Your task to perform on an android device: uninstall "VLC for Android" Image 0: 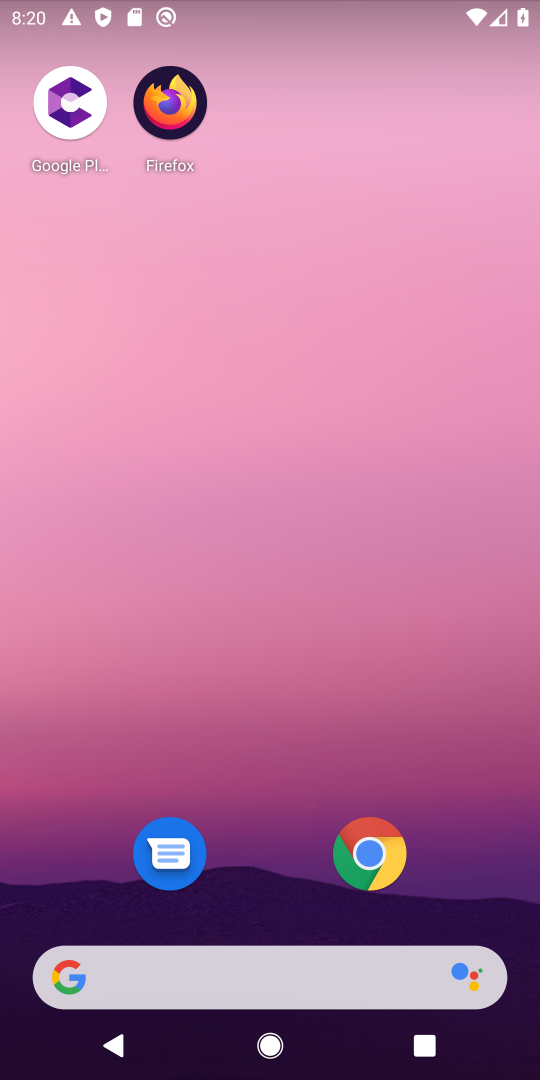
Step 0: click (307, 233)
Your task to perform on an android device: uninstall "VLC for Android" Image 1: 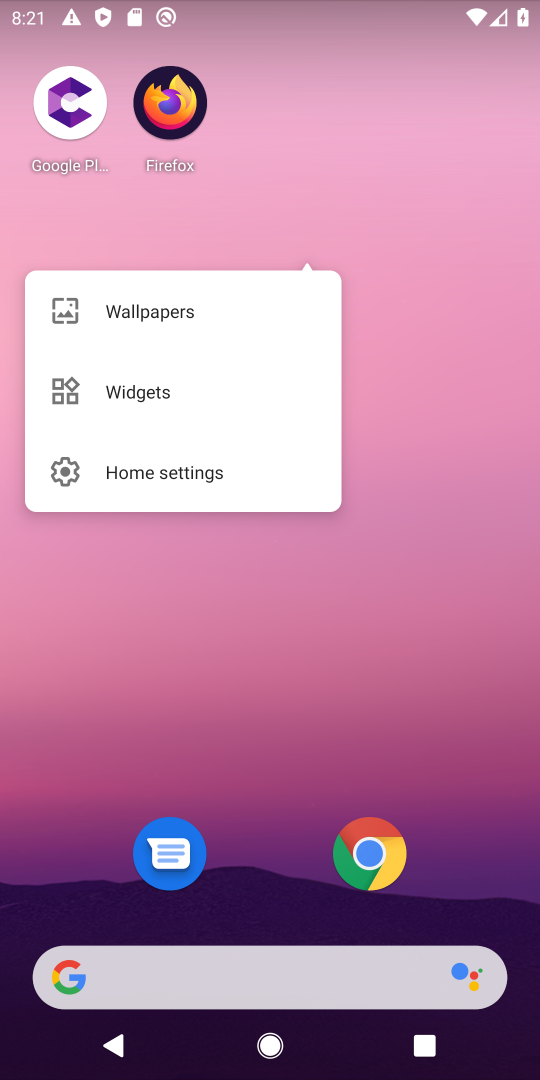
Step 1: click (229, 715)
Your task to perform on an android device: uninstall "VLC for Android" Image 2: 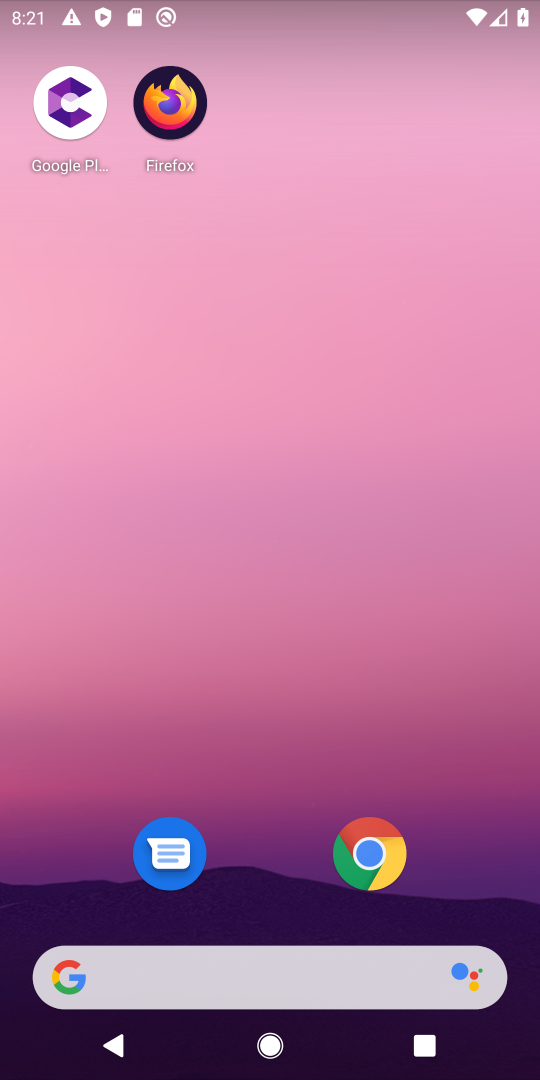
Step 2: drag from (216, 656) to (331, 124)
Your task to perform on an android device: uninstall "VLC for Android" Image 3: 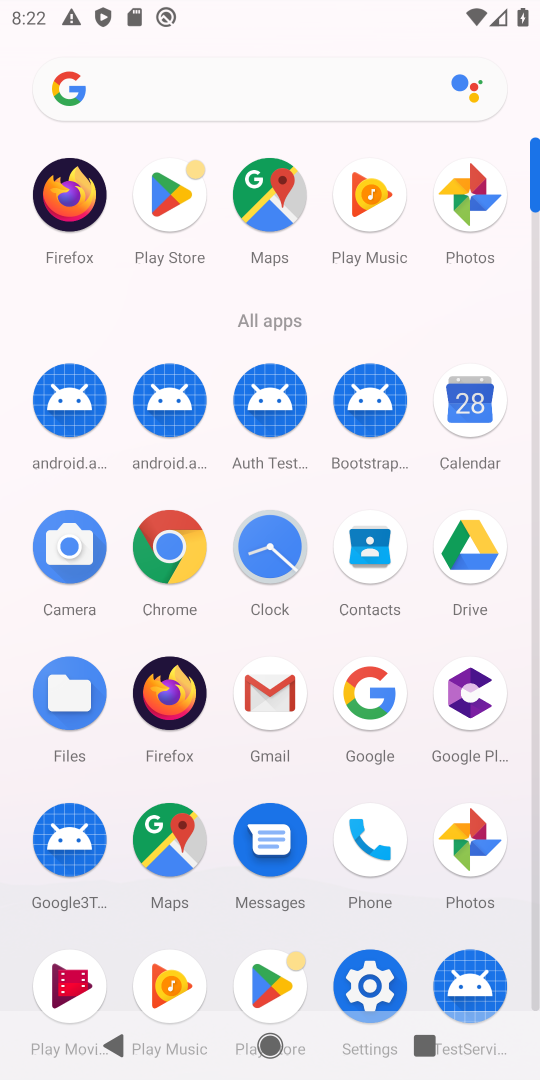
Step 3: click (165, 209)
Your task to perform on an android device: uninstall "VLC for Android" Image 4: 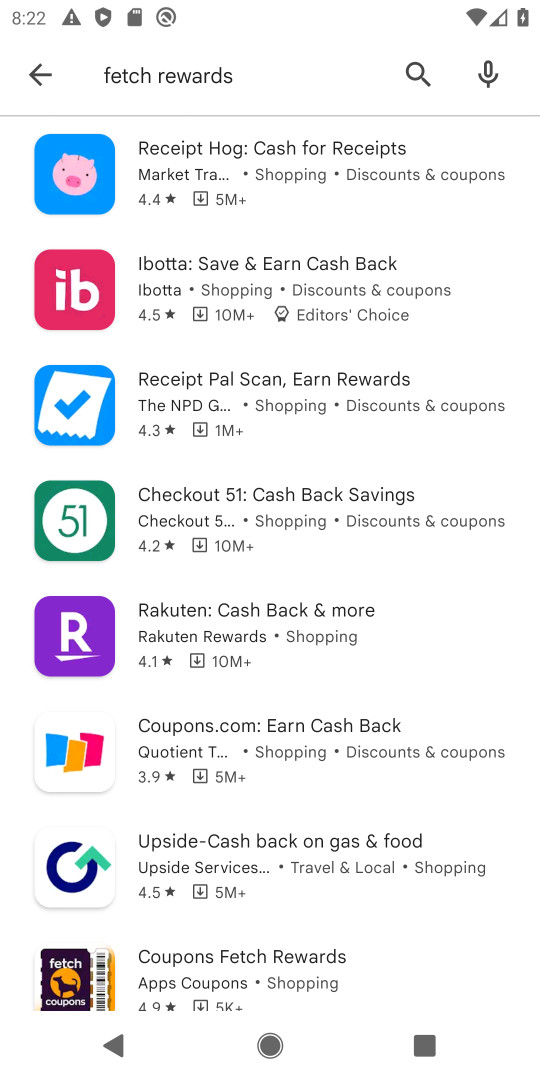
Step 4: click (30, 81)
Your task to perform on an android device: uninstall "VLC for Android" Image 5: 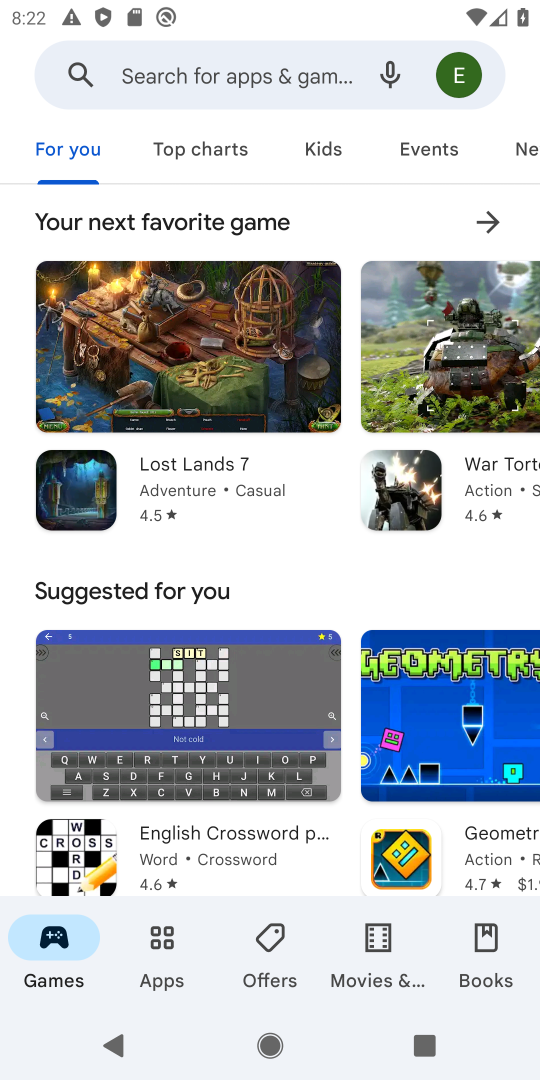
Step 5: click (177, 78)
Your task to perform on an android device: uninstall "VLC for Android" Image 6: 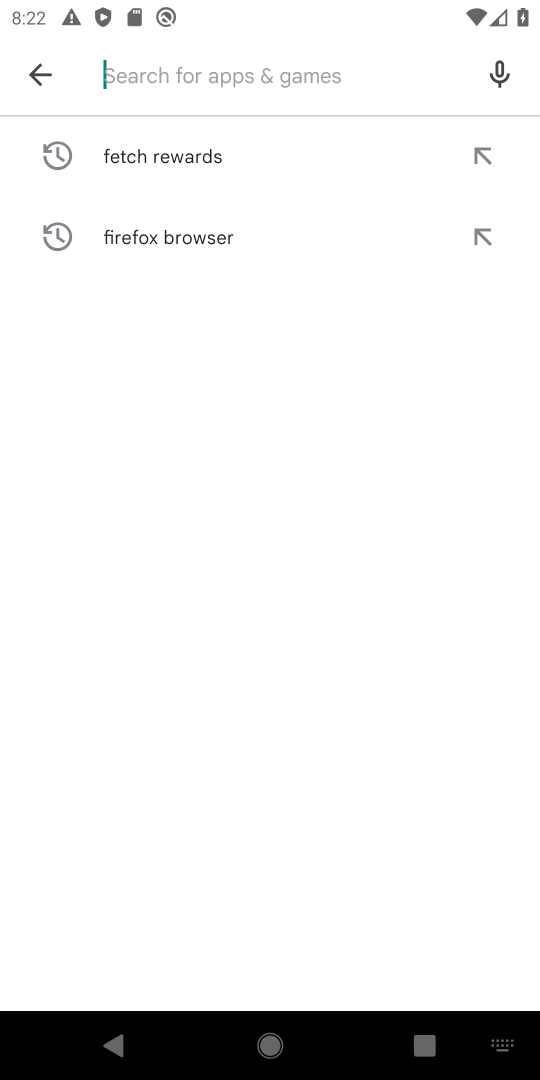
Step 6: type "VLC for Android"
Your task to perform on an android device: uninstall "VLC for Android" Image 7: 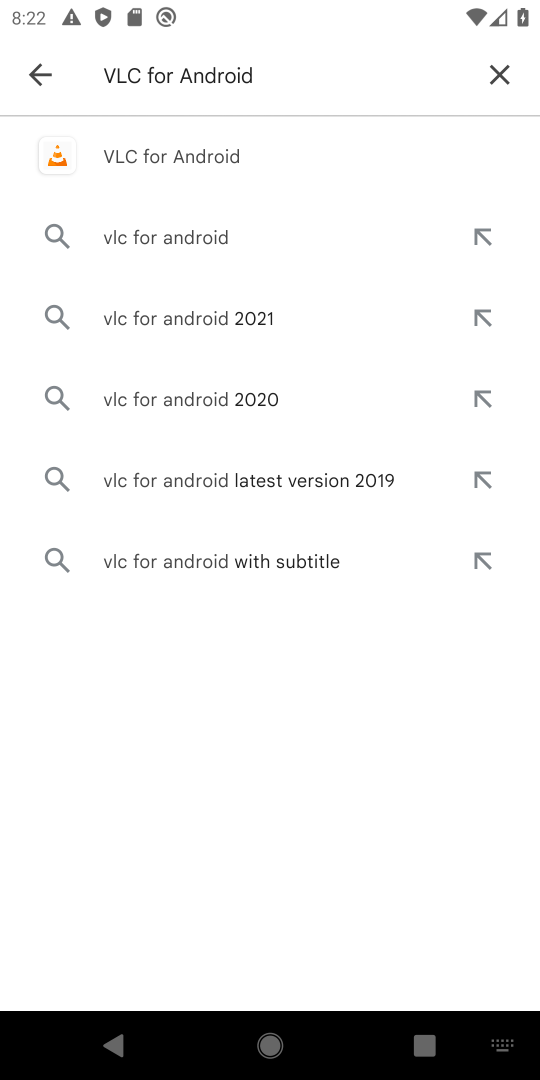
Step 7: click (150, 154)
Your task to perform on an android device: uninstall "VLC for Android" Image 8: 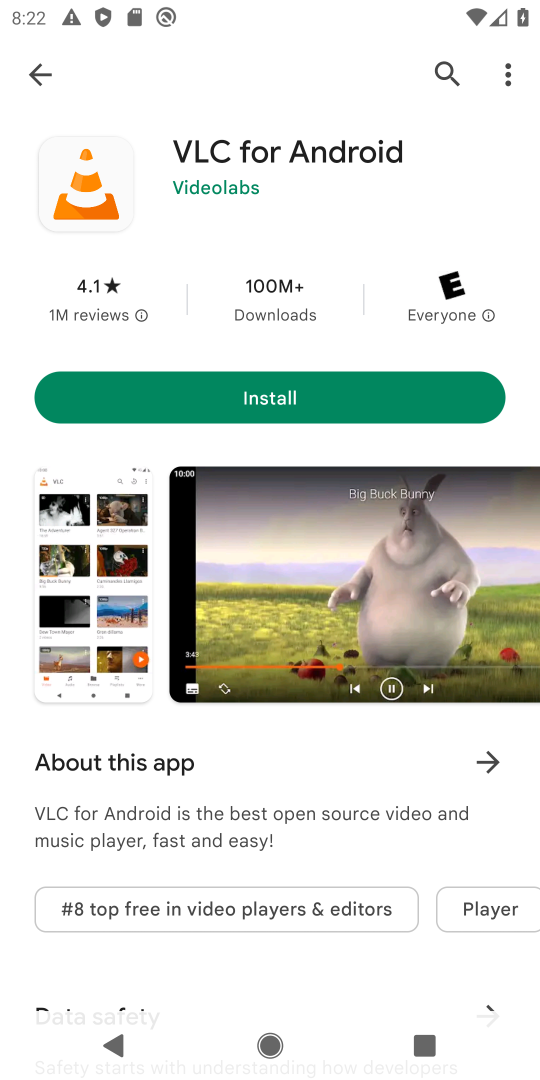
Step 8: click (259, 395)
Your task to perform on an android device: uninstall "VLC for Android" Image 9: 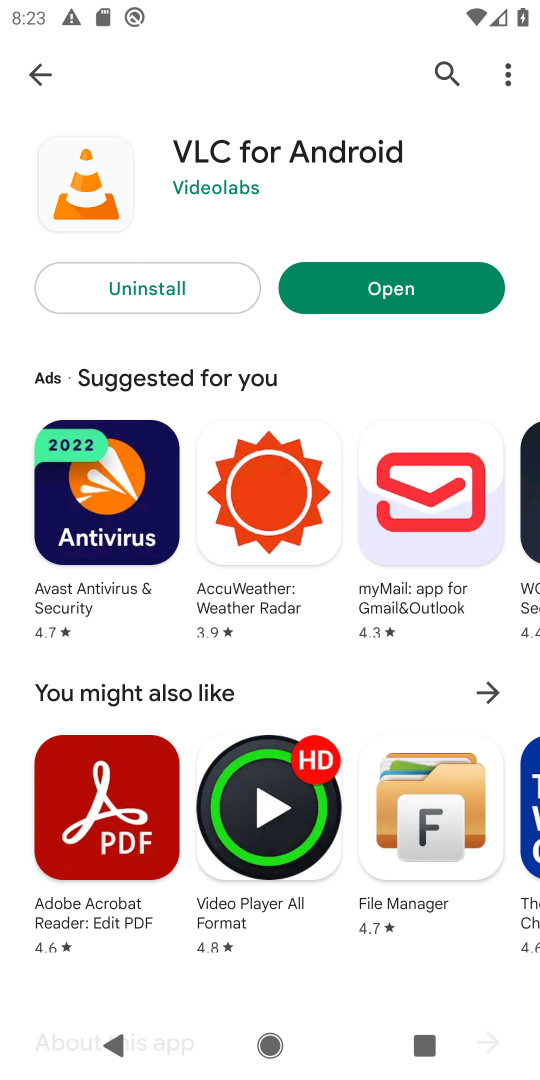
Step 9: click (212, 284)
Your task to perform on an android device: uninstall "VLC for Android" Image 10: 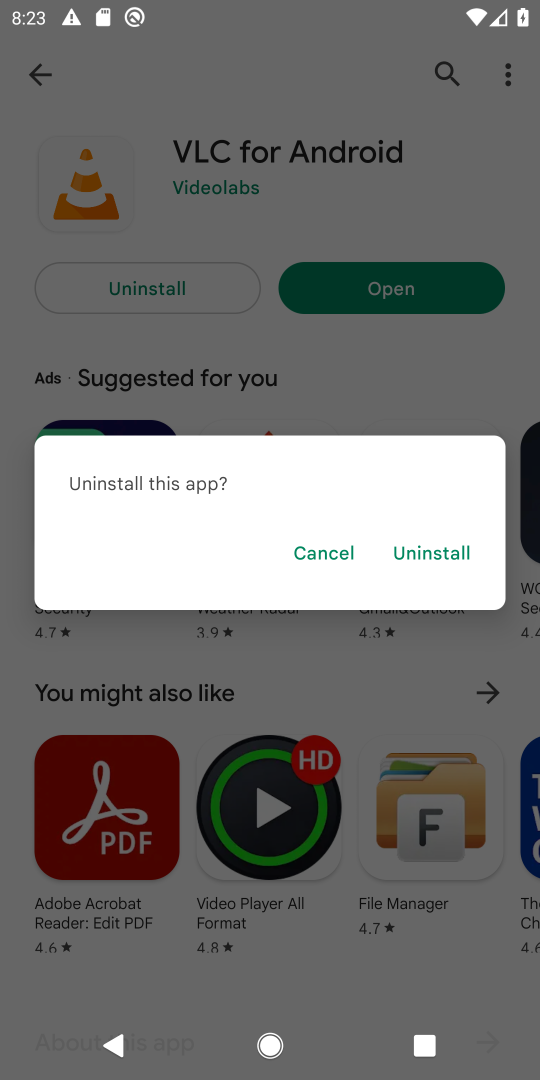
Step 10: click (409, 541)
Your task to perform on an android device: uninstall "VLC for Android" Image 11: 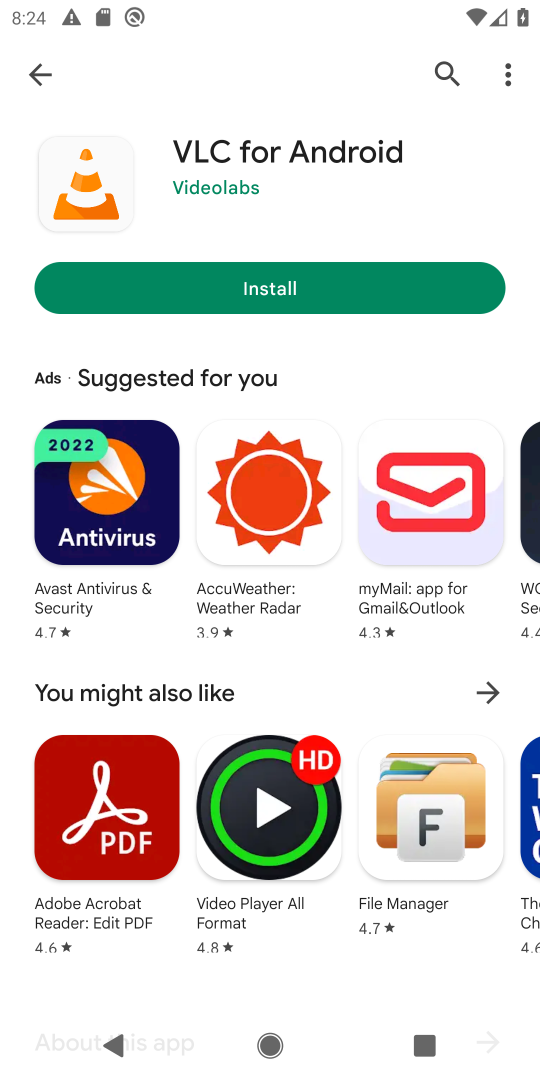
Step 11: task complete